Your task to perform on an android device: change the clock style Image 0: 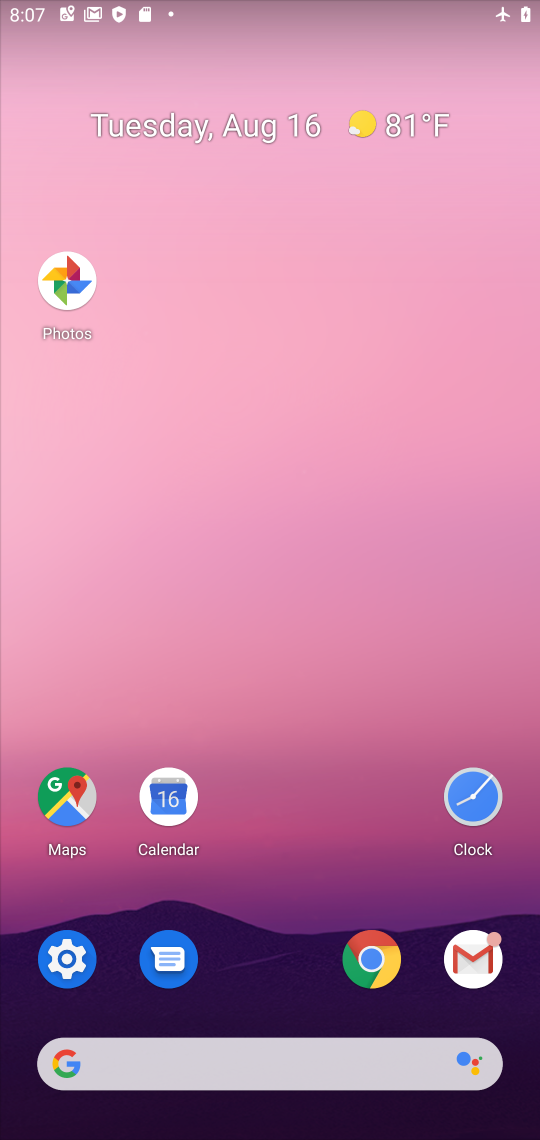
Step 0: click (468, 807)
Your task to perform on an android device: change the clock style Image 1: 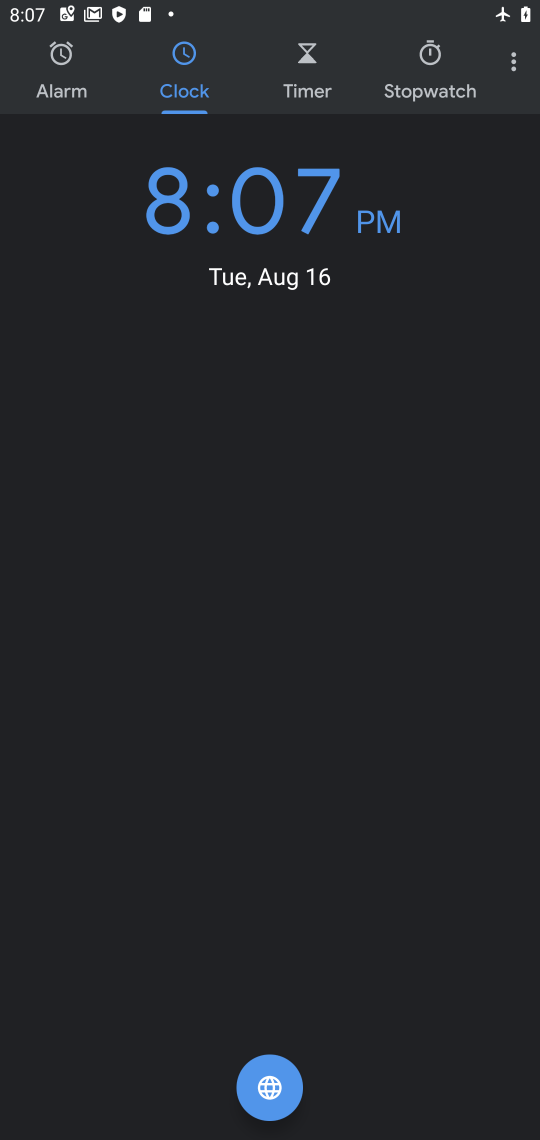
Step 1: click (519, 68)
Your task to perform on an android device: change the clock style Image 2: 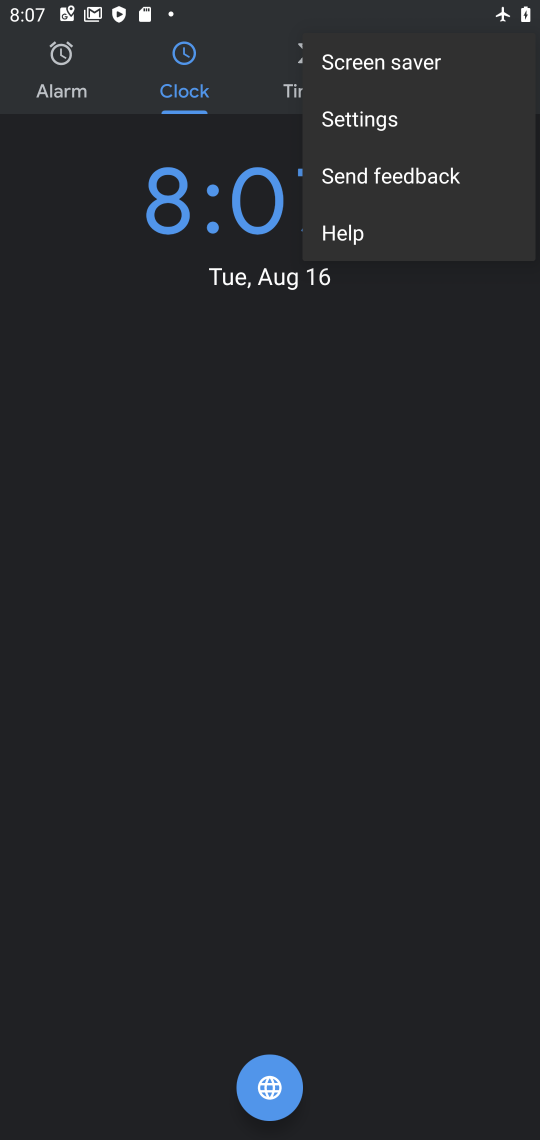
Step 2: click (367, 115)
Your task to perform on an android device: change the clock style Image 3: 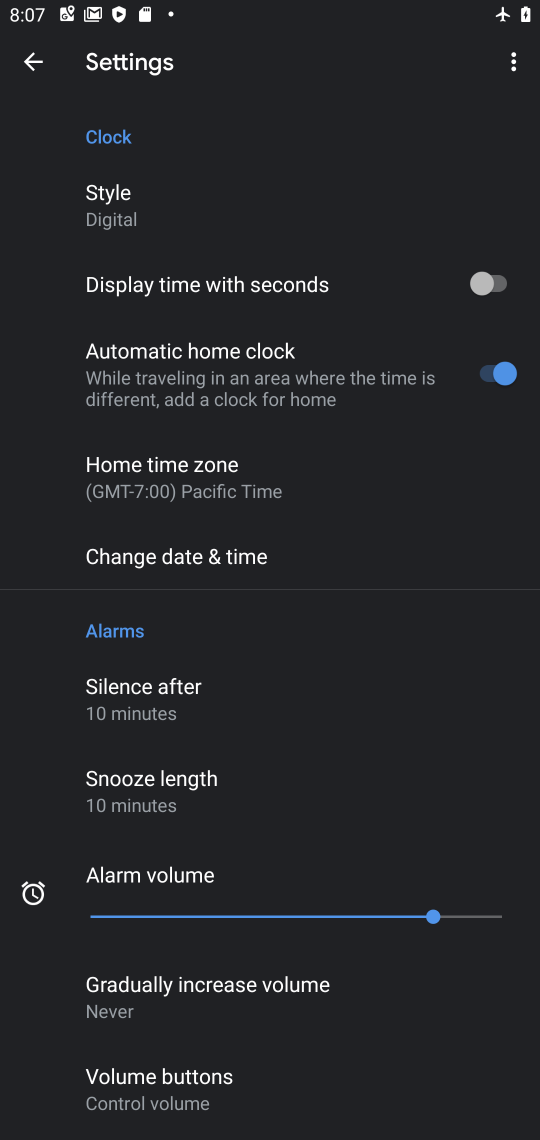
Step 3: click (113, 202)
Your task to perform on an android device: change the clock style Image 4: 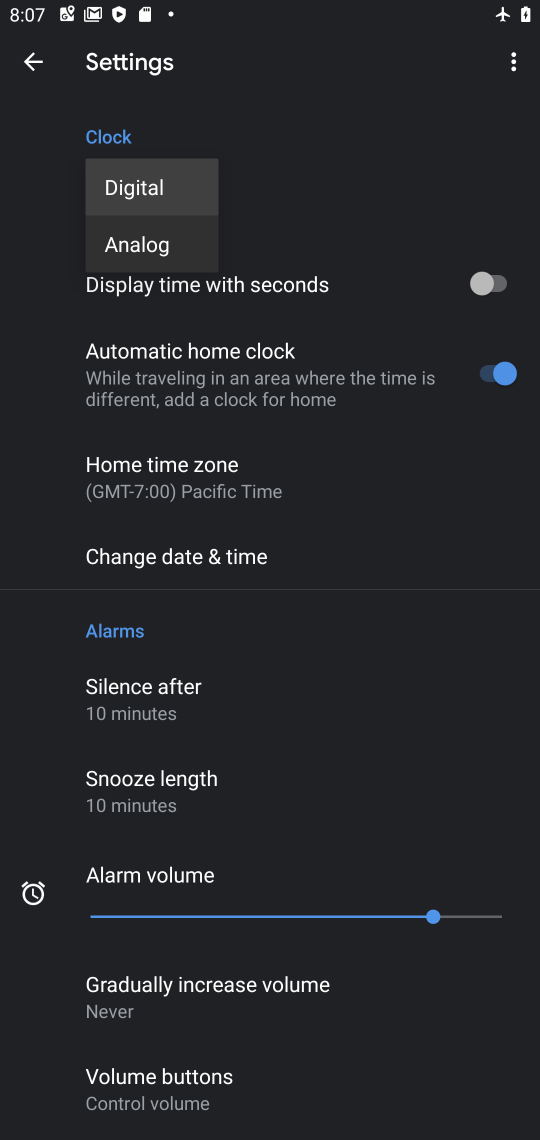
Step 4: click (131, 242)
Your task to perform on an android device: change the clock style Image 5: 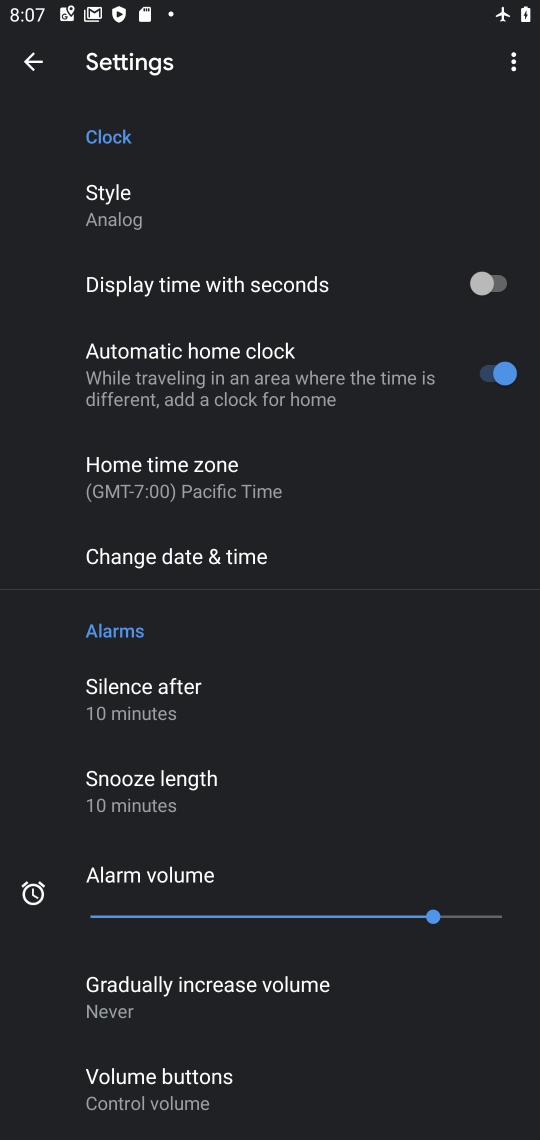
Step 5: task complete